Your task to perform on an android device: open chrome and create a bookmark for the current page Image 0: 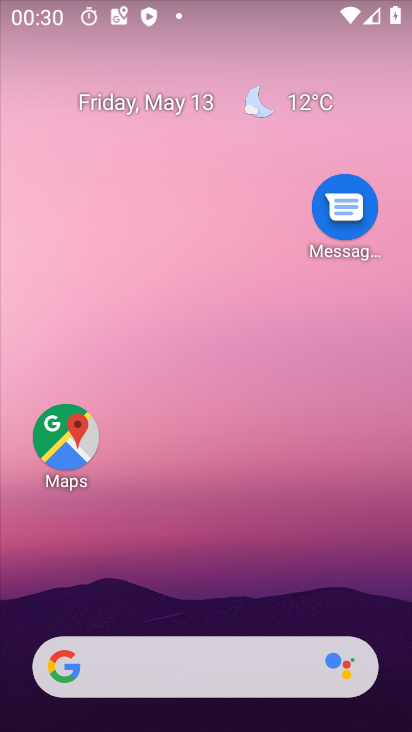
Step 0: drag from (346, 579) to (363, 338)
Your task to perform on an android device: open chrome and create a bookmark for the current page Image 1: 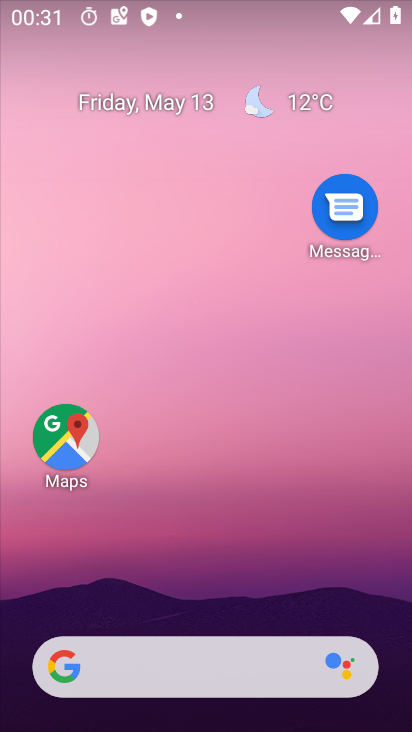
Step 1: drag from (274, 373) to (323, 58)
Your task to perform on an android device: open chrome and create a bookmark for the current page Image 2: 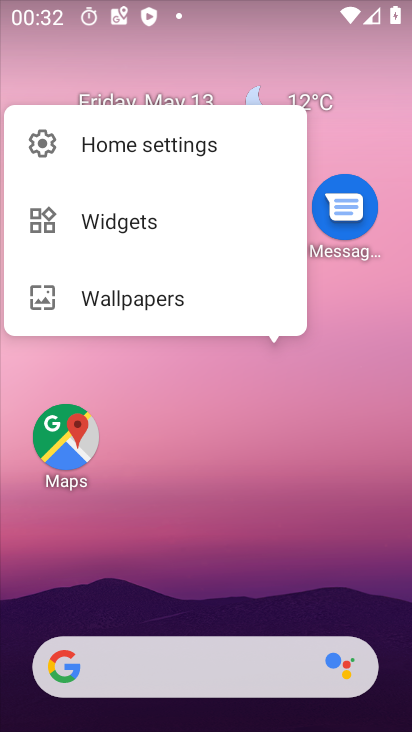
Step 2: click (146, 442)
Your task to perform on an android device: open chrome and create a bookmark for the current page Image 3: 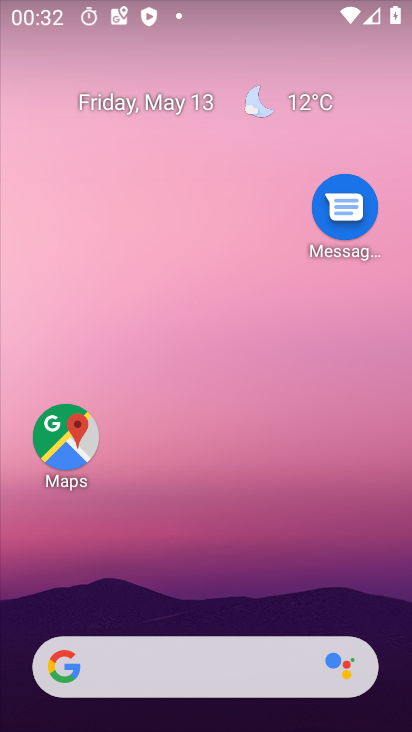
Step 3: drag from (289, 532) to (289, 0)
Your task to perform on an android device: open chrome and create a bookmark for the current page Image 4: 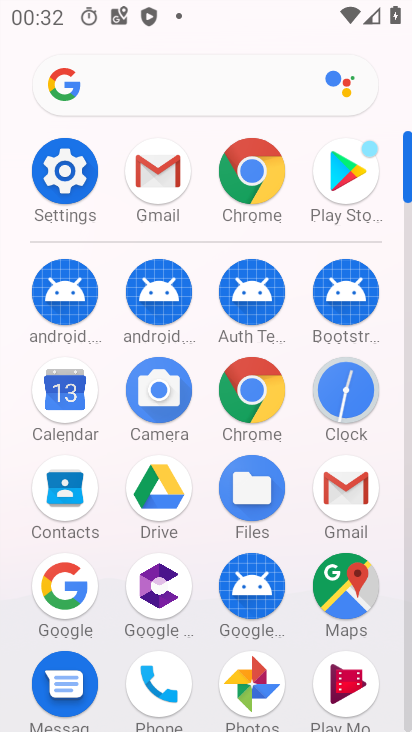
Step 4: drag from (285, 297) to (278, 66)
Your task to perform on an android device: open chrome and create a bookmark for the current page Image 5: 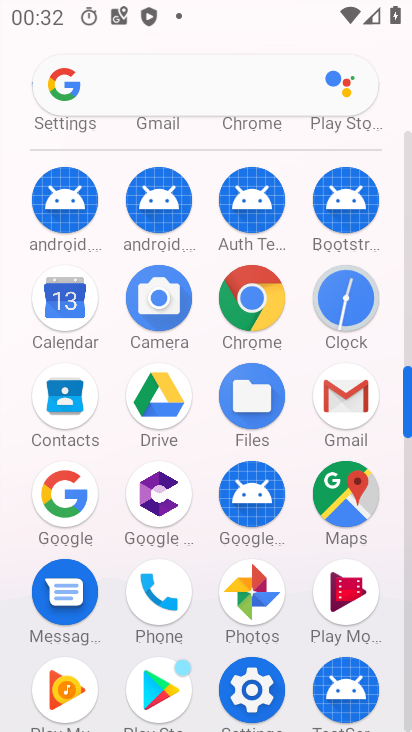
Step 5: click (272, 162)
Your task to perform on an android device: open chrome and create a bookmark for the current page Image 6: 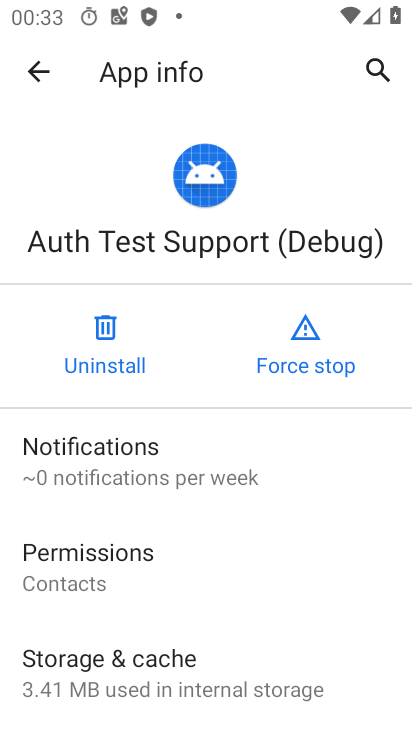
Step 6: press back button
Your task to perform on an android device: open chrome and create a bookmark for the current page Image 7: 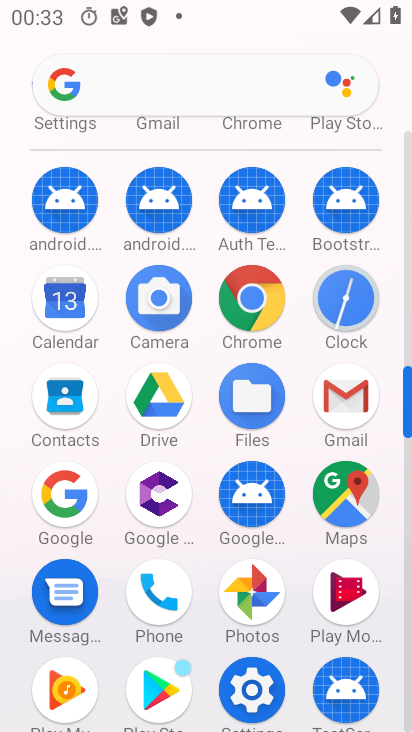
Step 7: click (237, 295)
Your task to perform on an android device: open chrome and create a bookmark for the current page Image 8: 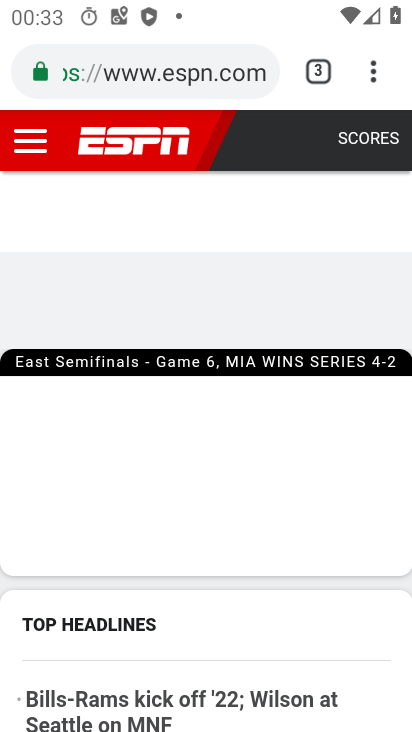
Step 8: task complete